Your task to perform on an android device: toggle priority inbox in the gmail app Image 0: 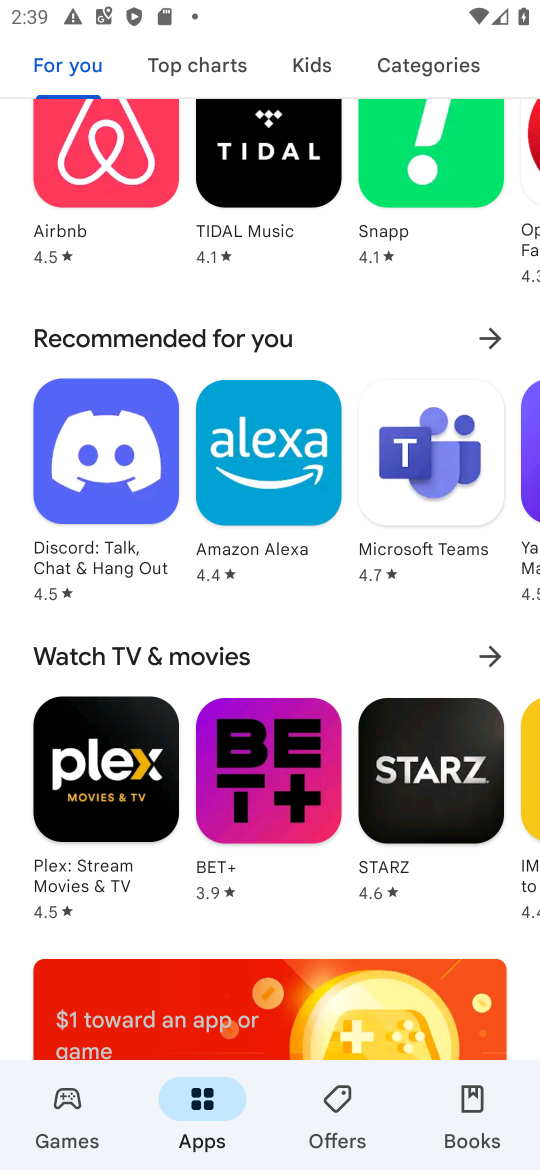
Step 0: press home button
Your task to perform on an android device: toggle priority inbox in the gmail app Image 1: 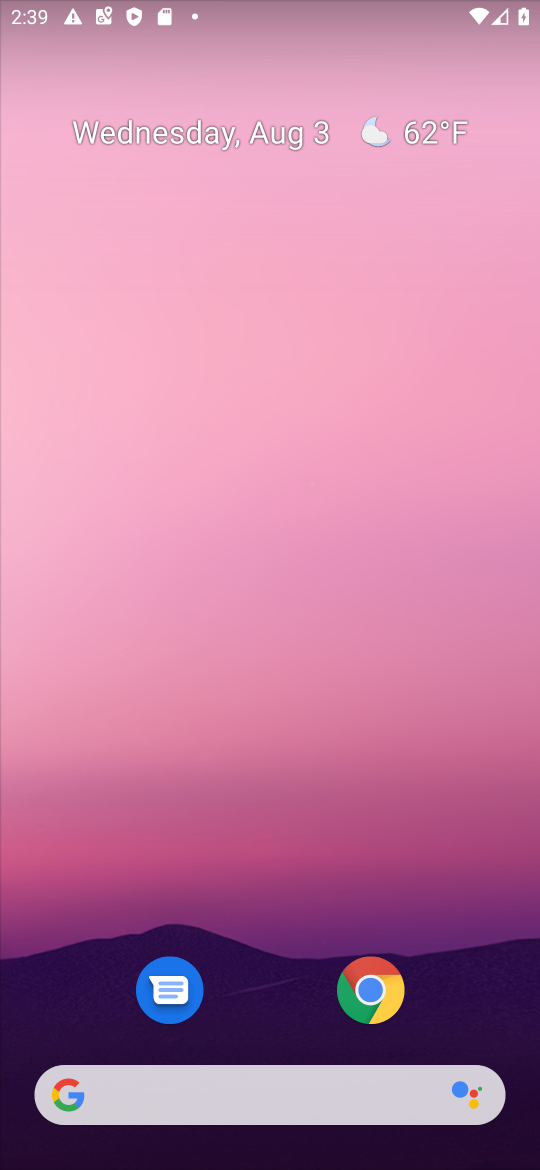
Step 1: drag from (281, 1076) to (153, 251)
Your task to perform on an android device: toggle priority inbox in the gmail app Image 2: 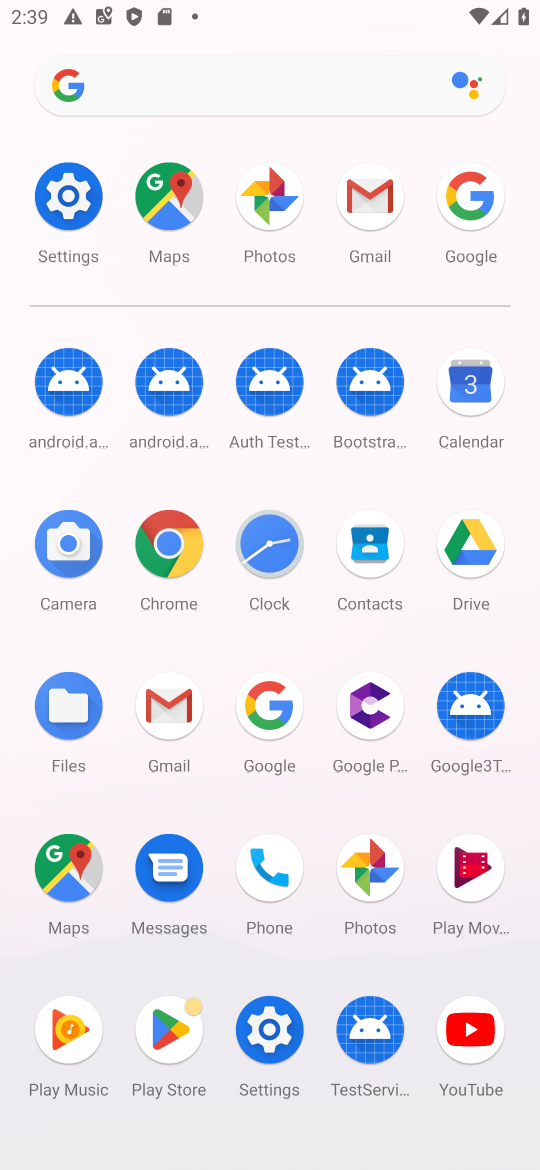
Step 2: click (379, 193)
Your task to perform on an android device: toggle priority inbox in the gmail app Image 3: 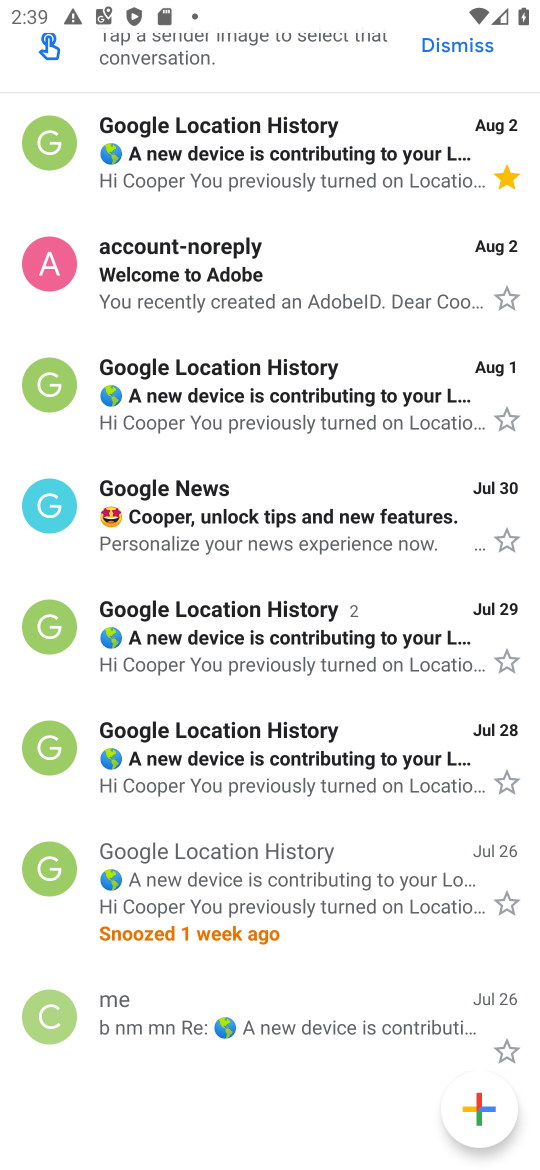
Step 3: drag from (190, 86) to (268, 656)
Your task to perform on an android device: toggle priority inbox in the gmail app Image 4: 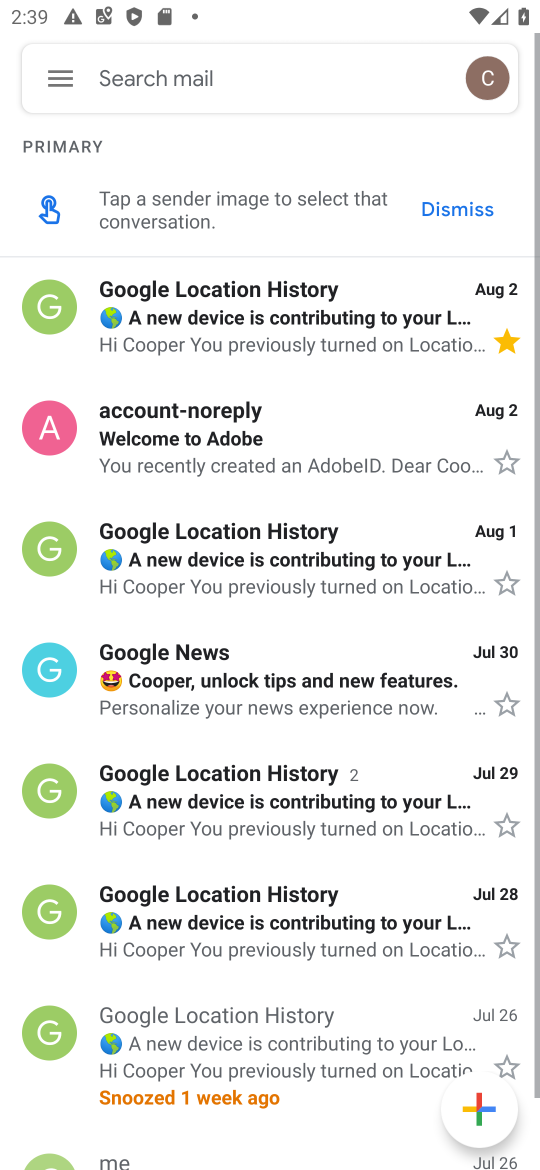
Step 4: click (47, 84)
Your task to perform on an android device: toggle priority inbox in the gmail app Image 5: 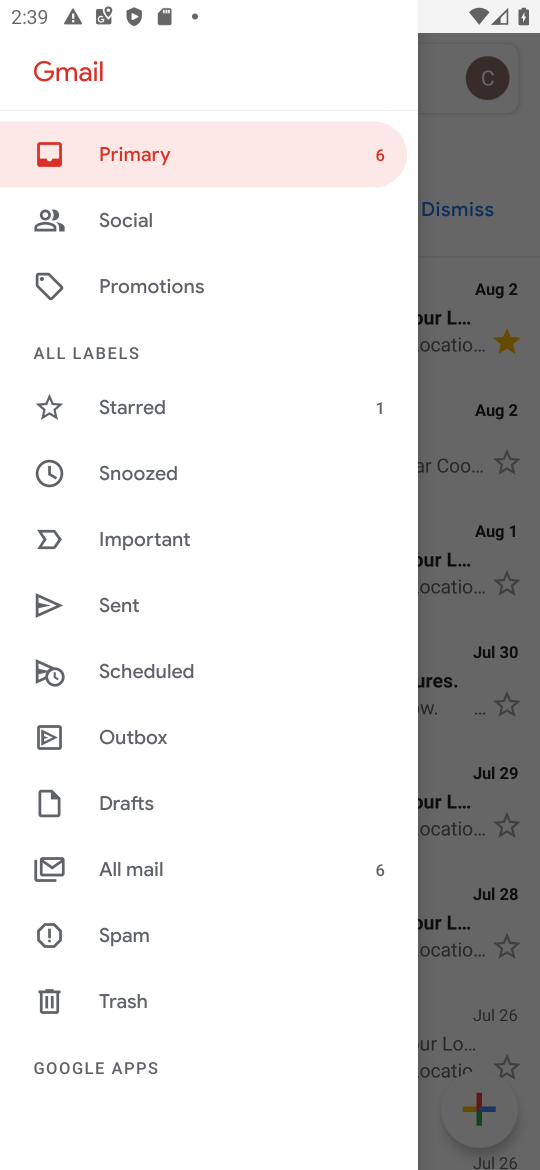
Step 5: drag from (130, 1086) to (140, 510)
Your task to perform on an android device: toggle priority inbox in the gmail app Image 6: 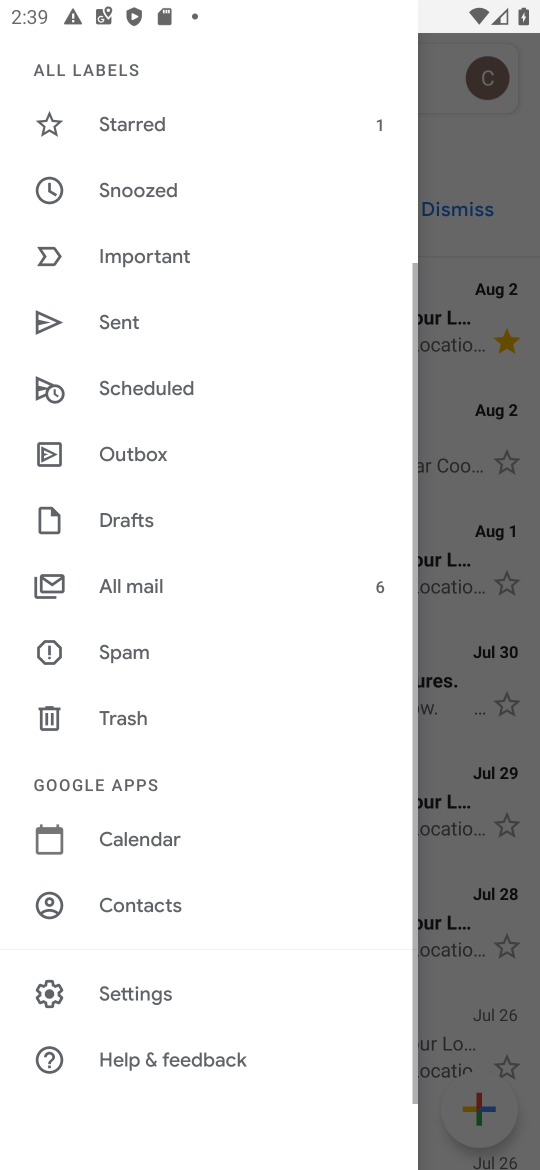
Step 6: click (163, 991)
Your task to perform on an android device: toggle priority inbox in the gmail app Image 7: 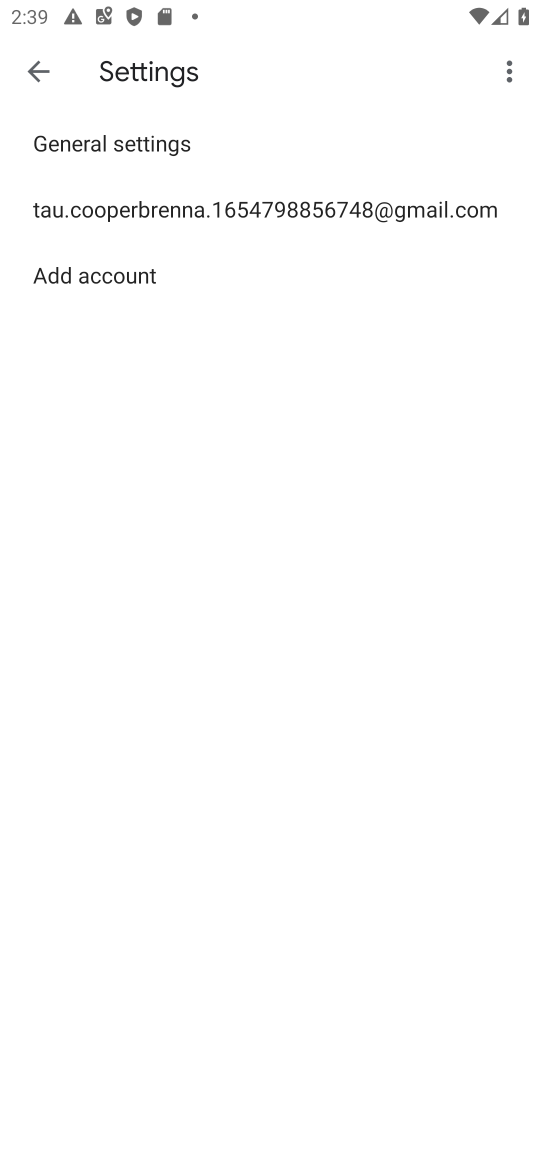
Step 7: click (112, 209)
Your task to perform on an android device: toggle priority inbox in the gmail app Image 8: 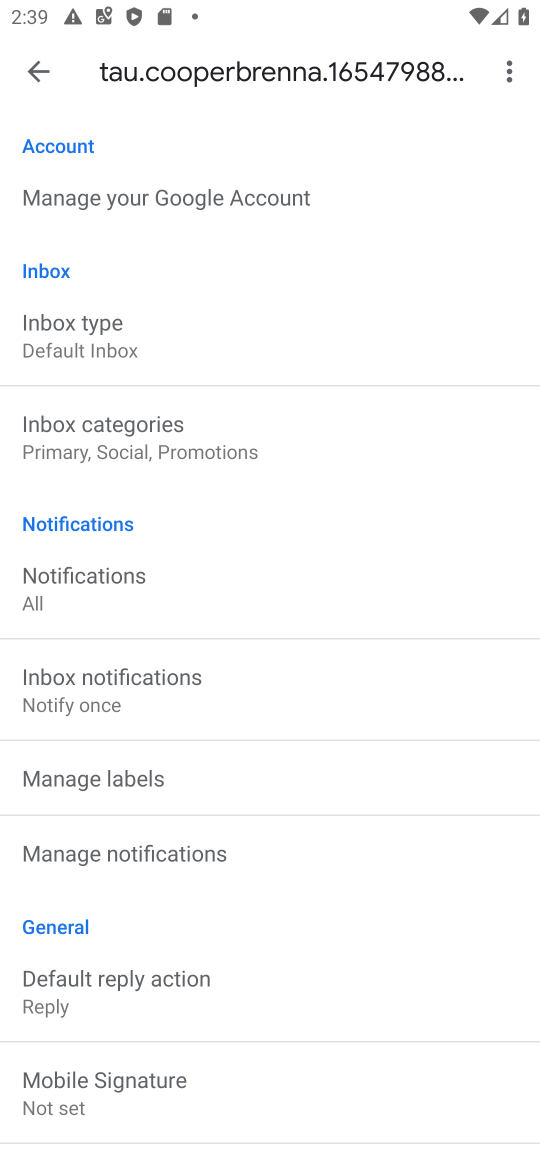
Step 8: click (107, 356)
Your task to perform on an android device: toggle priority inbox in the gmail app Image 9: 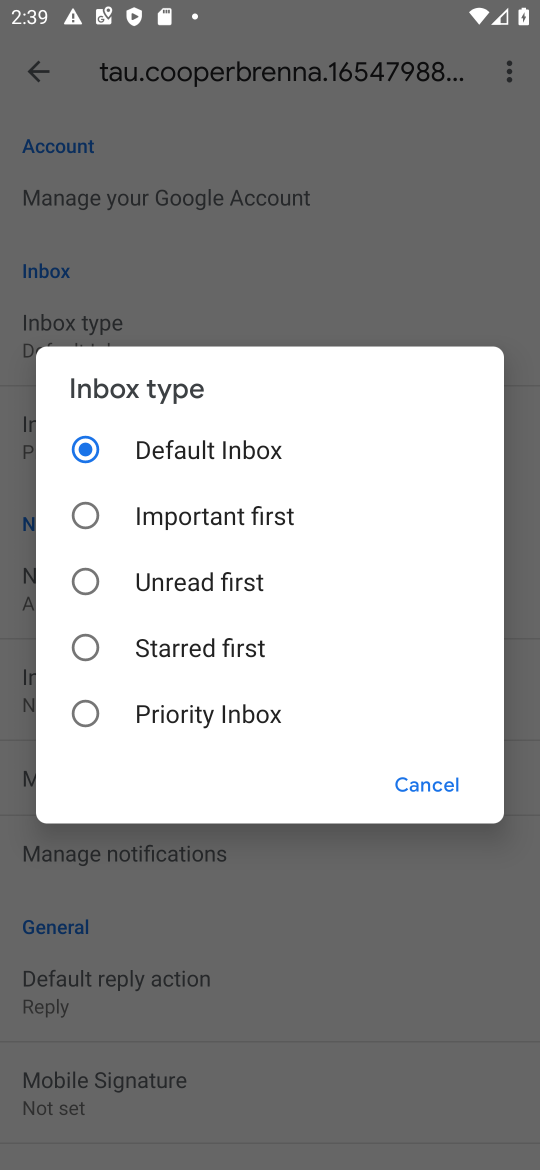
Step 9: click (200, 706)
Your task to perform on an android device: toggle priority inbox in the gmail app Image 10: 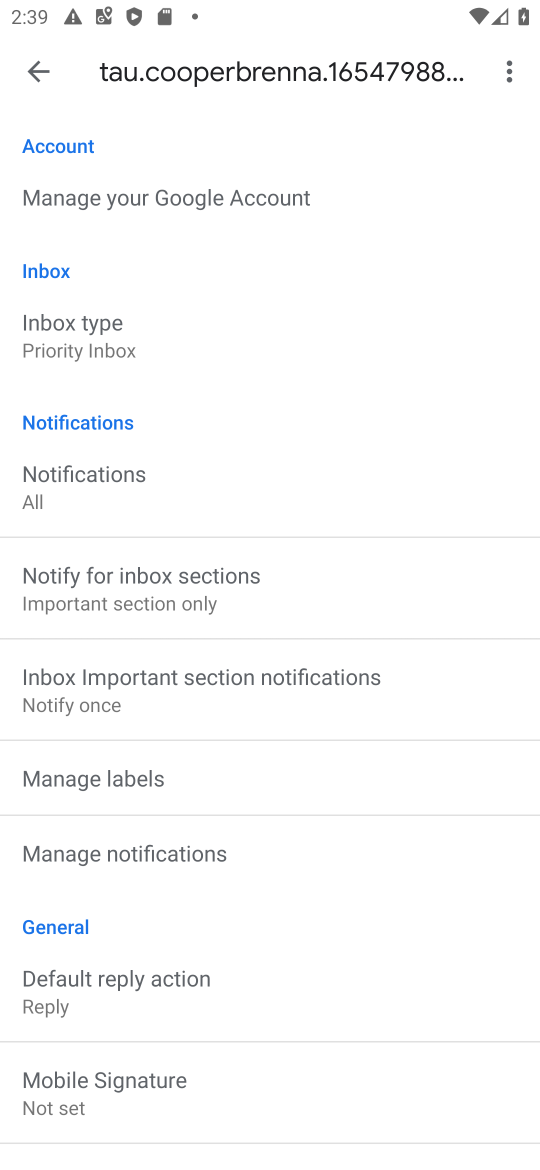
Step 10: task complete